Your task to perform on an android device: add a contact Image 0: 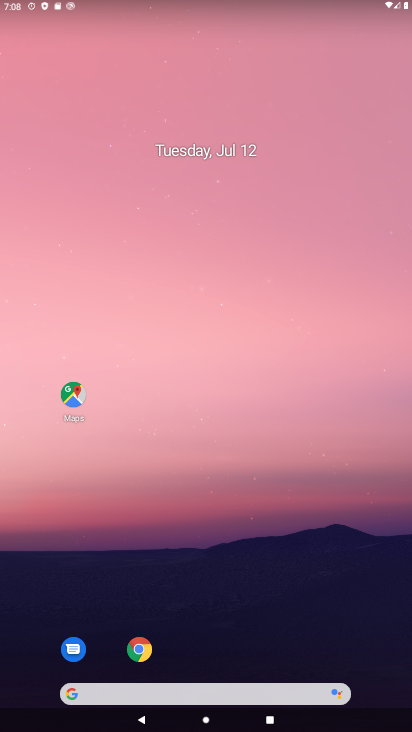
Step 0: drag from (172, 689) to (231, 217)
Your task to perform on an android device: add a contact Image 1: 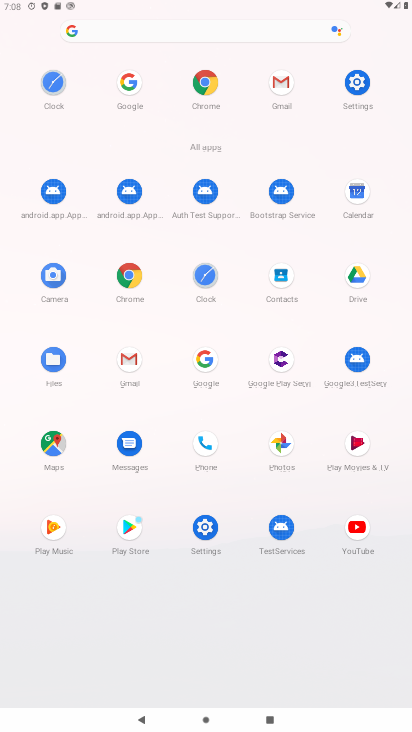
Step 1: click (281, 276)
Your task to perform on an android device: add a contact Image 2: 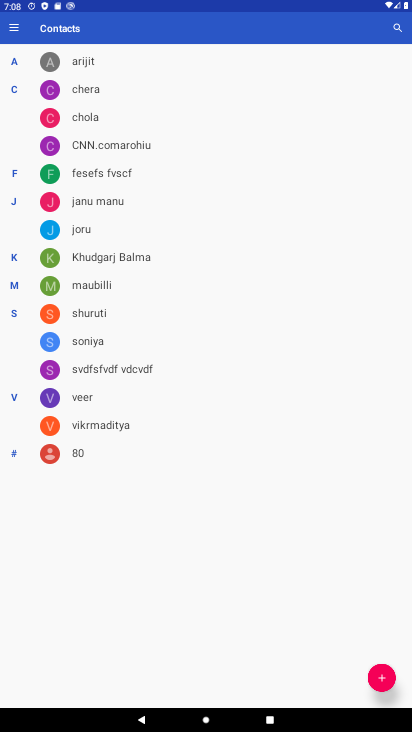
Step 2: click (382, 680)
Your task to perform on an android device: add a contact Image 3: 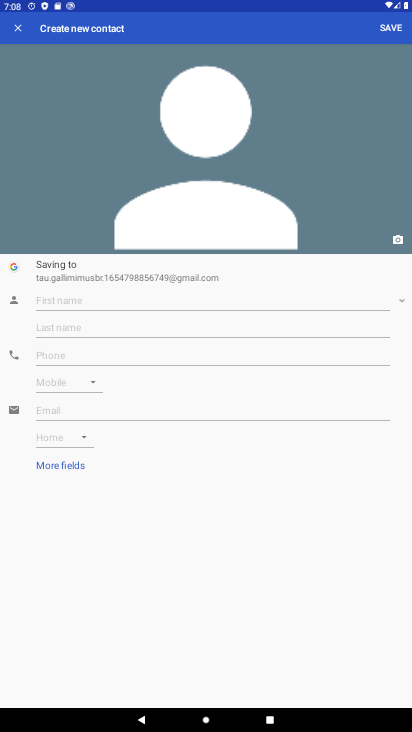
Step 3: click (137, 297)
Your task to perform on an android device: add a contact Image 4: 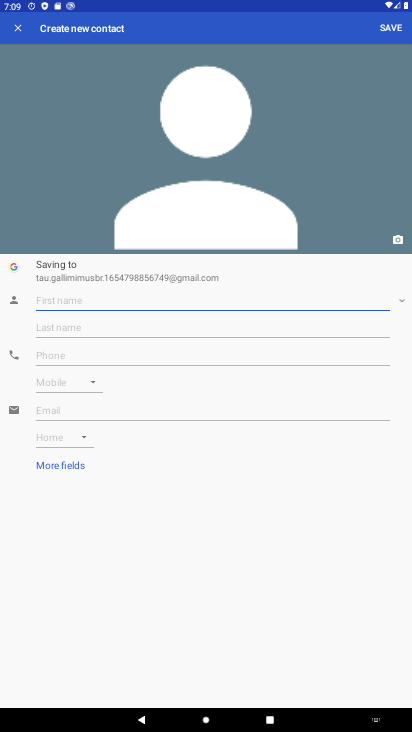
Step 4: type "Rameshwaram"
Your task to perform on an android device: add a contact Image 5: 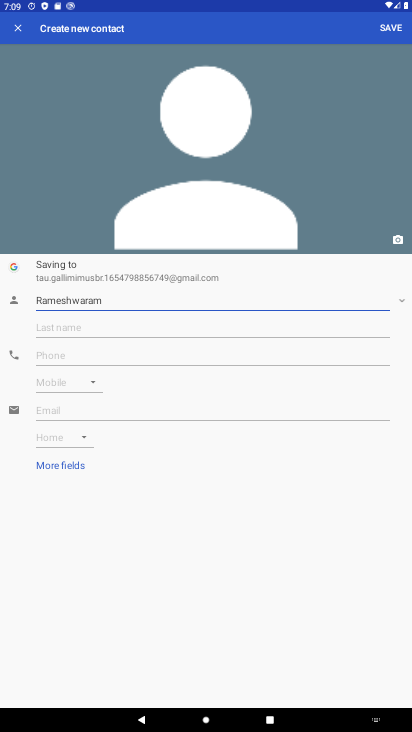
Step 5: click (66, 329)
Your task to perform on an android device: add a contact Image 6: 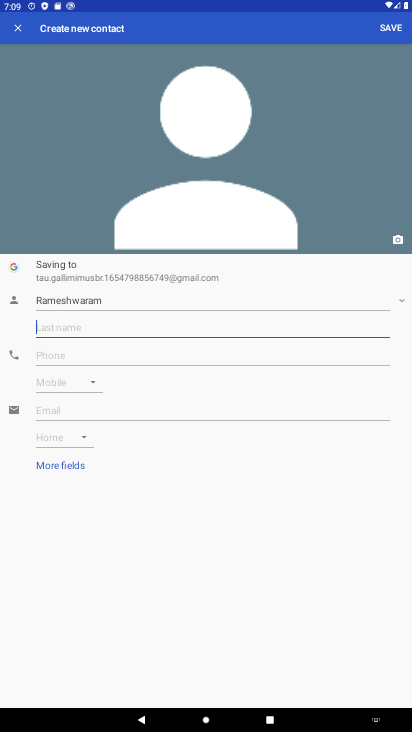
Step 6: type "Prasad"
Your task to perform on an android device: add a contact Image 7: 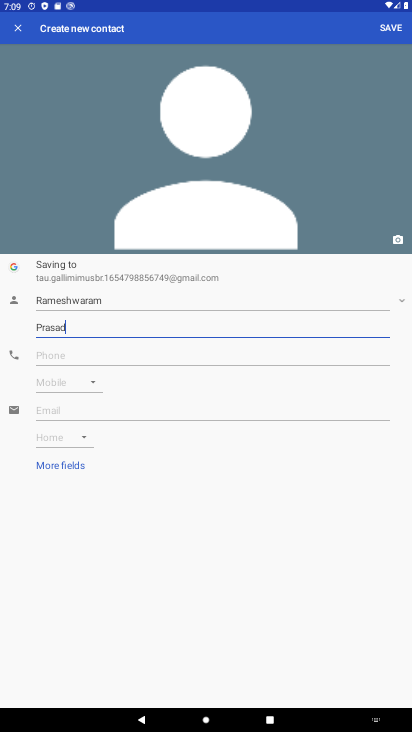
Step 7: click (169, 356)
Your task to perform on an android device: add a contact Image 8: 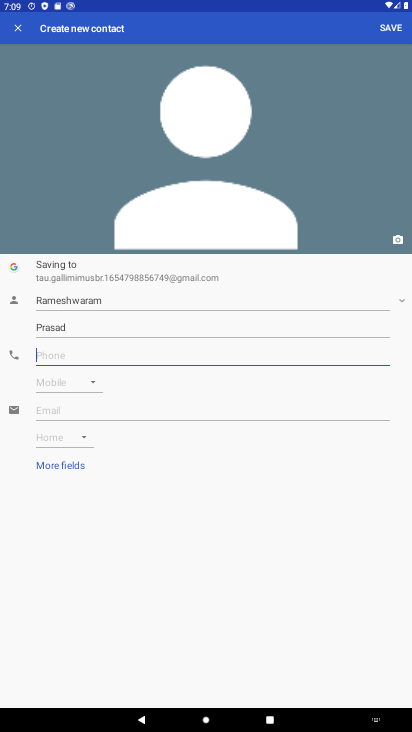
Step 8: type "09911335577"
Your task to perform on an android device: add a contact Image 9: 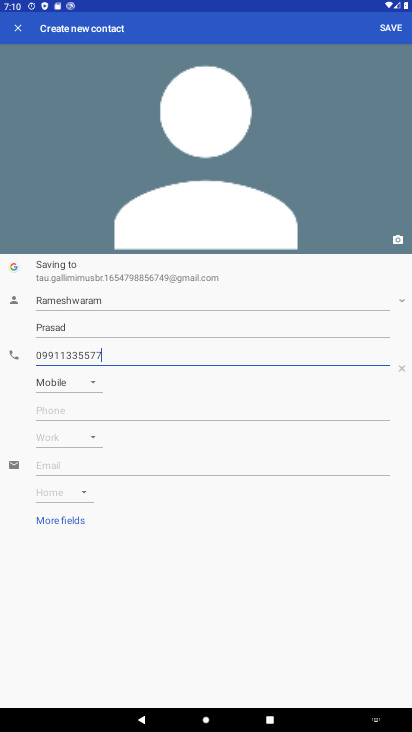
Step 9: click (394, 30)
Your task to perform on an android device: add a contact Image 10: 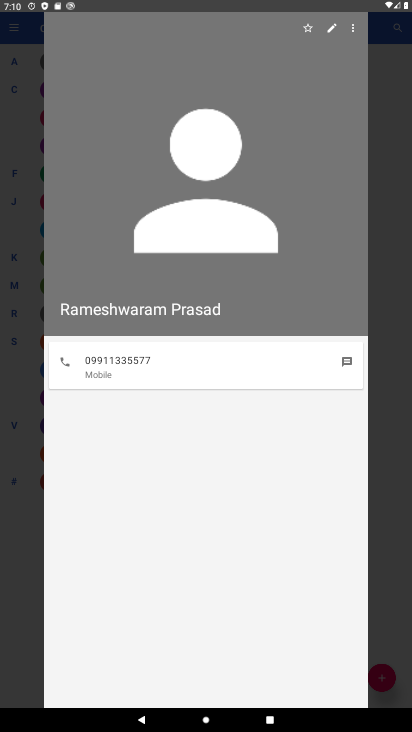
Step 10: task complete